Your task to perform on an android device: Open Amazon Image 0: 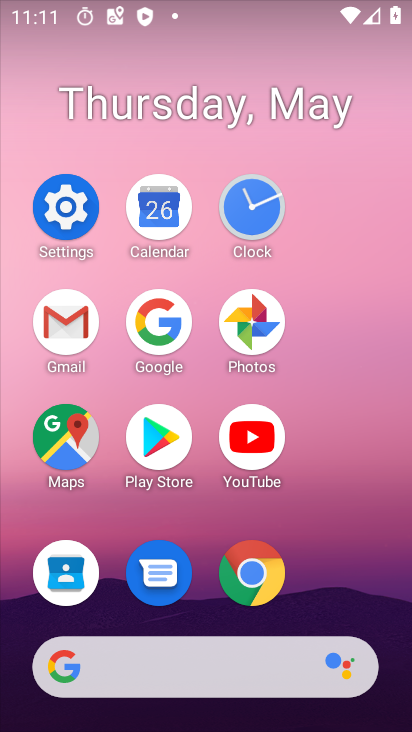
Step 0: click (261, 580)
Your task to perform on an android device: Open Amazon Image 1: 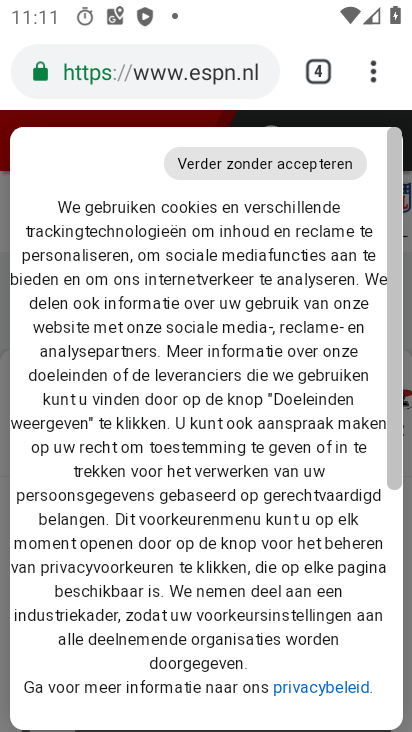
Step 1: click (319, 69)
Your task to perform on an android device: Open Amazon Image 2: 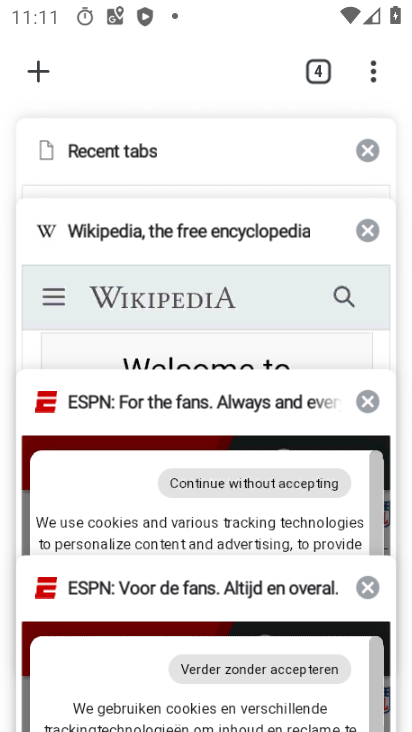
Step 2: drag from (272, 213) to (278, 454)
Your task to perform on an android device: Open Amazon Image 3: 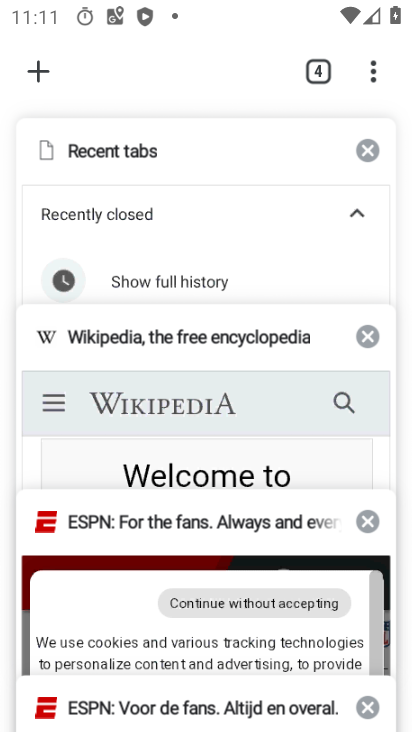
Step 3: click (40, 80)
Your task to perform on an android device: Open Amazon Image 4: 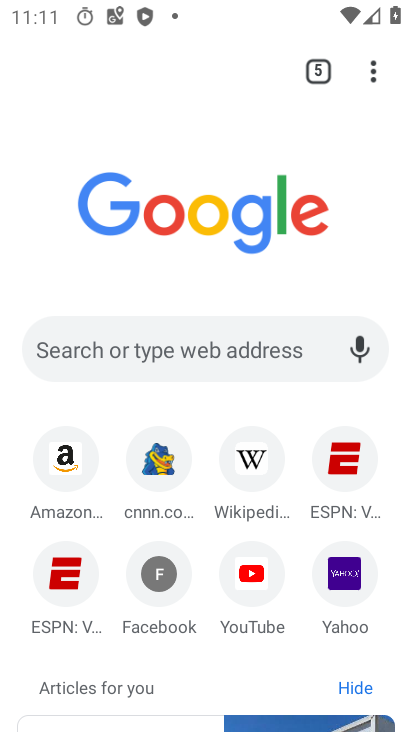
Step 4: click (64, 457)
Your task to perform on an android device: Open Amazon Image 5: 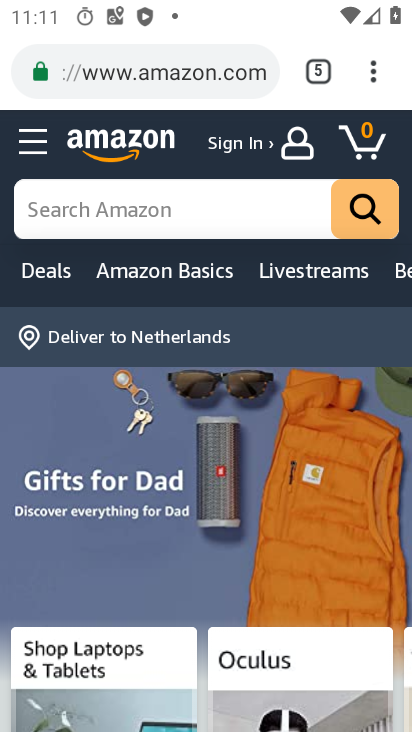
Step 5: task complete